Your task to perform on an android device: move a message to another label in the gmail app Image 0: 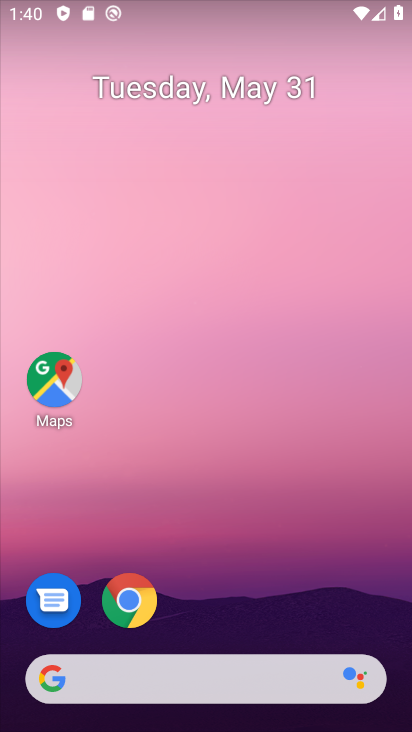
Step 0: press home button
Your task to perform on an android device: move a message to another label in the gmail app Image 1: 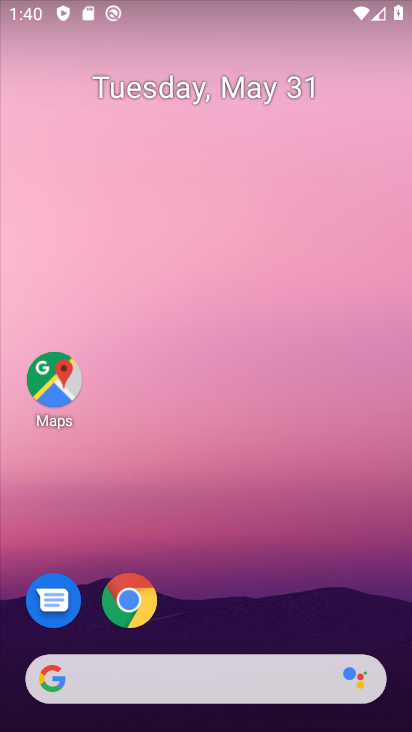
Step 1: drag from (225, 554) to (134, 13)
Your task to perform on an android device: move a message to another label in the gmail app Image 2: 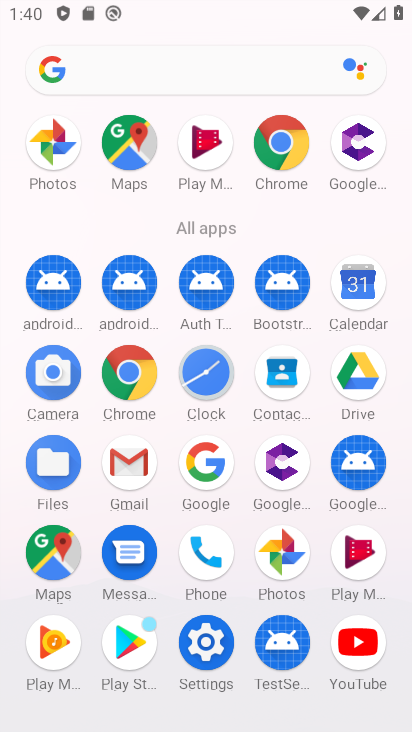
Step 2: click (126, 460)
Your task to perform on an android device: move a message to another label in the gmail app Image 3: 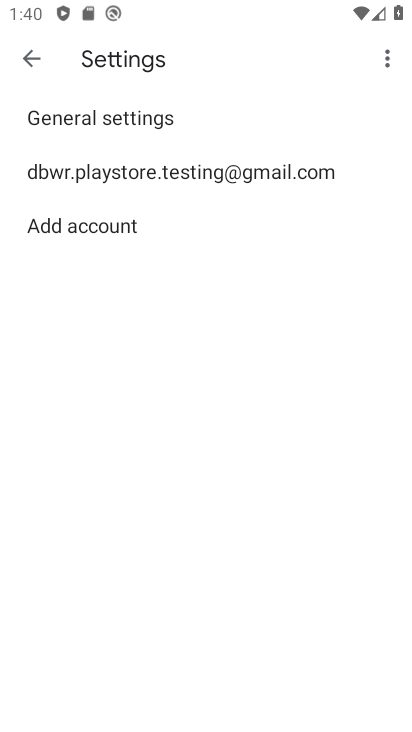
Step 3: click (28, 53)
Your task to perform on an android device: move a message to another label in the gmail app Image 4: 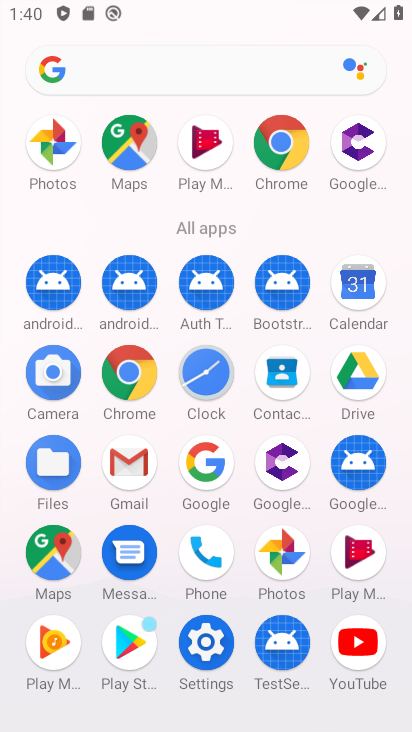
Step 4: click (119, 457)
Your task to perform on an android device: move a message to another label in the gmail app Image 5: 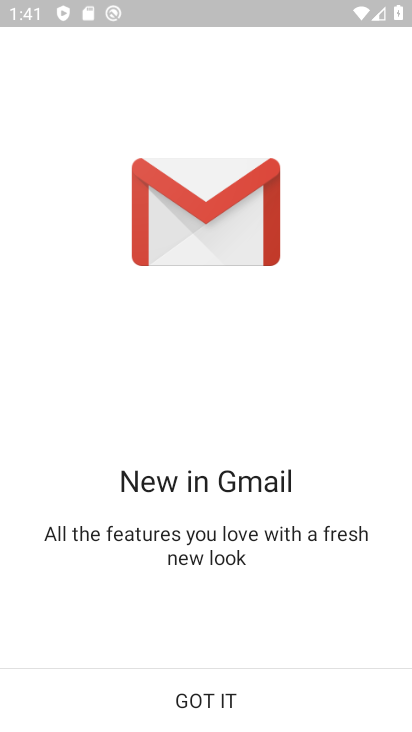
Step 5: click (193, 699)
Your task to perform on an android device: move a message to another label in the gmail app Image 6: 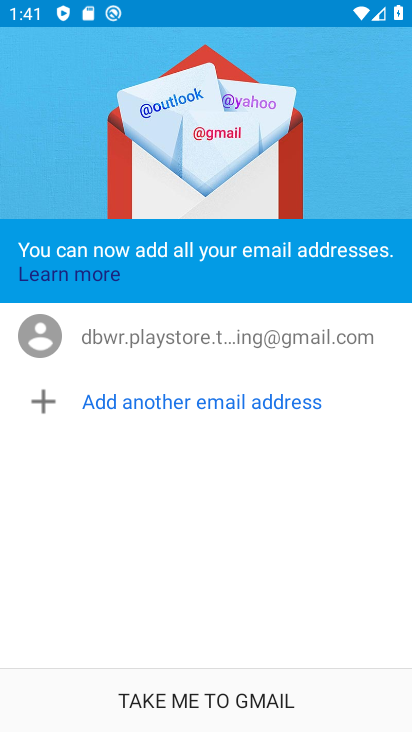
Step 6: click (201, 711)
Your task to perform on an android device: move a message to another label in the gmail app Image 7: 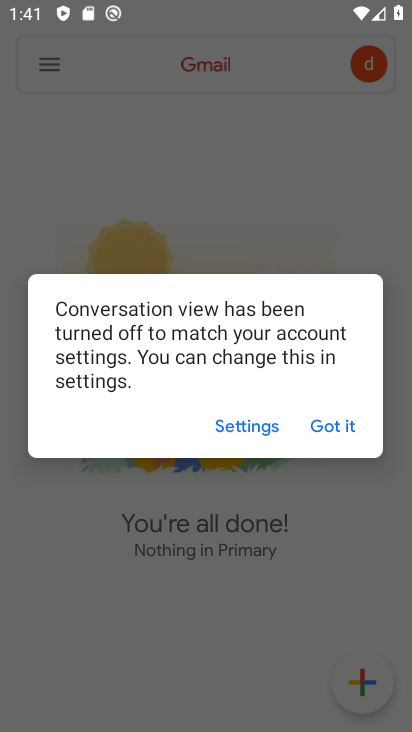
Step 7: click (324, 423)
Your task to perform on an android device: move a message to another label in the gmail app Image 8: 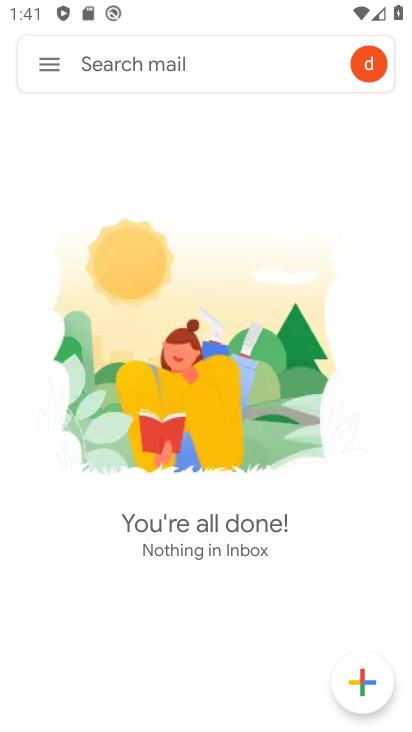
Step 8: task complete